Your task to perform on an android device: Search for Mexican restaurants on Maps Image 0: 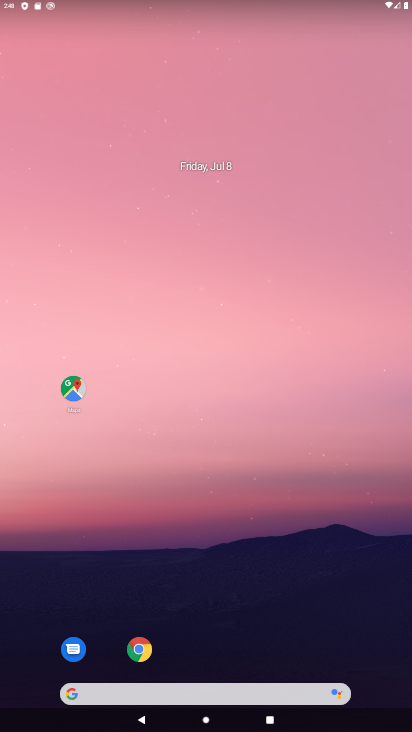
Step 0: drag from (207, 641) to (170, 150)
Your task to perform on an android device: Search for Mexican restaurants on Maps Image 1: 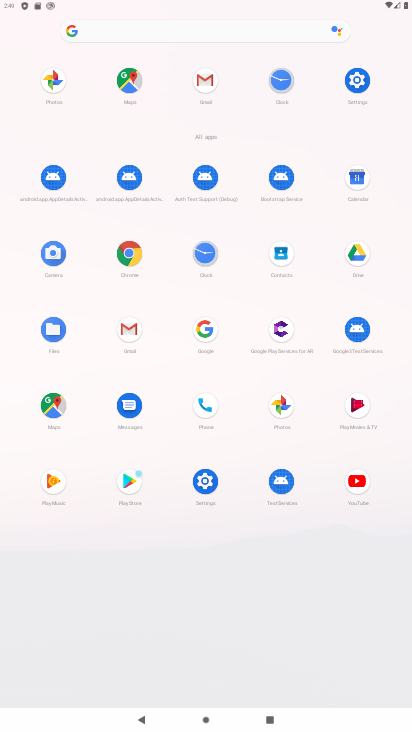
Step 1: click (51, 408)
Your task to perform on an android device: Search for Mexican restaurants on Maps Image 2: 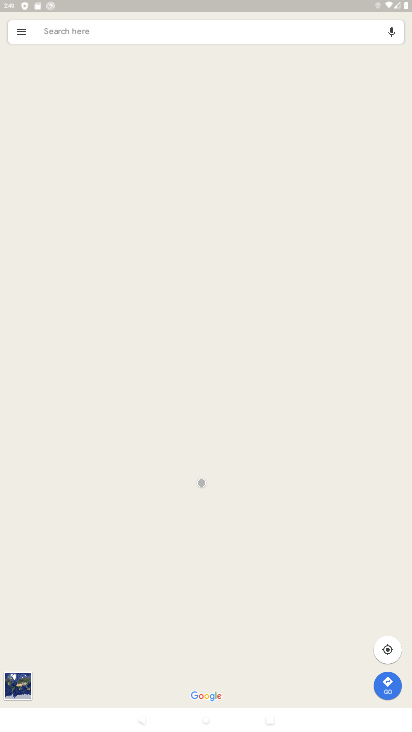
Step 2: click (180, 27)
Your task to perform on an android device: Search for Mexican restaurants on Maps Image 3: 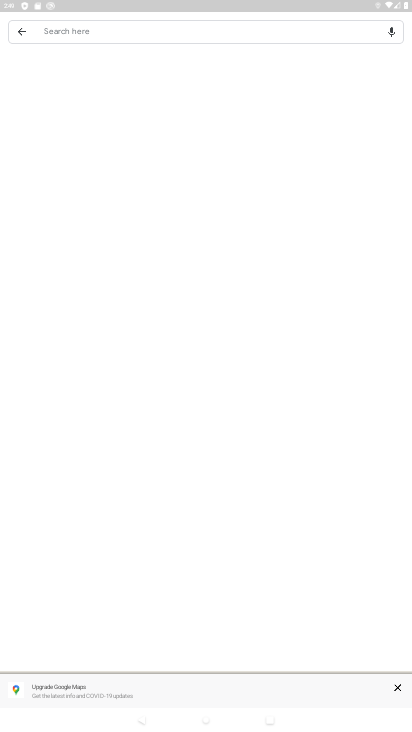
Step 3: click (136, 33)
Your task to perform on an android device: Search for Mexican restaurants on Maps Image 4: 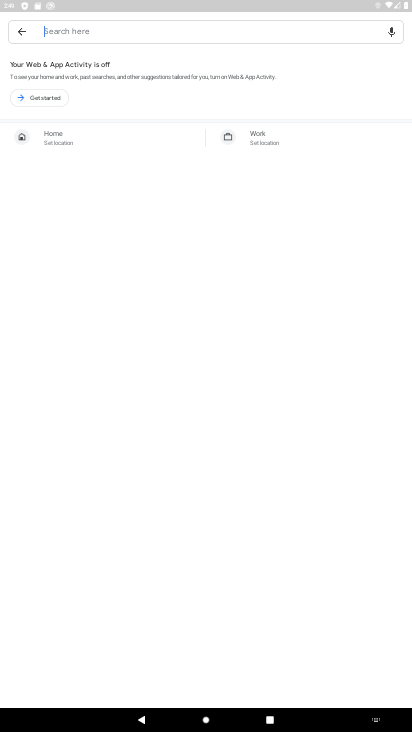
Step 4: type "Mexican restaurants"
Your task to perform on an android device: Search for Mexican restaurants on Maps Image 5: 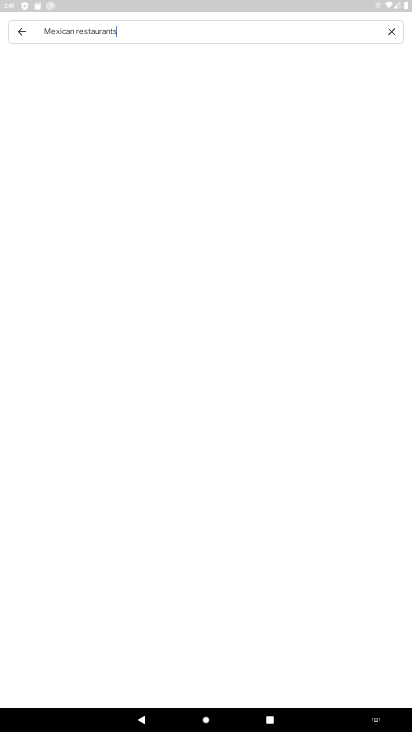
Step 5: type ""
Your task to perform on an android device: Search for Mexican restaurants on Maps Image 6: 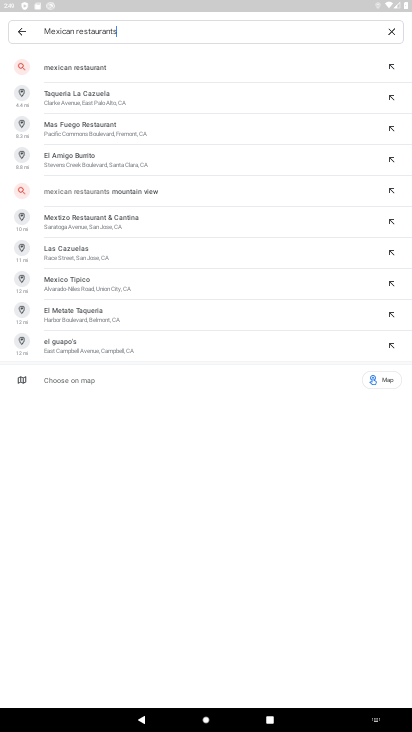
Step 6: click (62, 70)
Your task to perform on an android device: Search for Mexican restaurants on Maps Image 7: 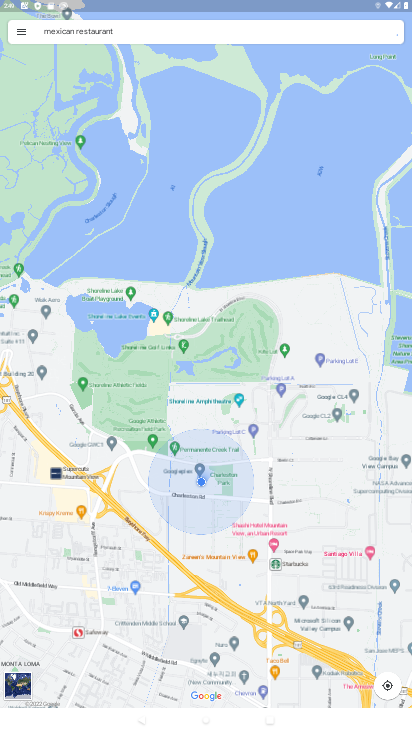
Step 7: task complete